Your task to perform on an android device: Is it going to rain today? Image 0: 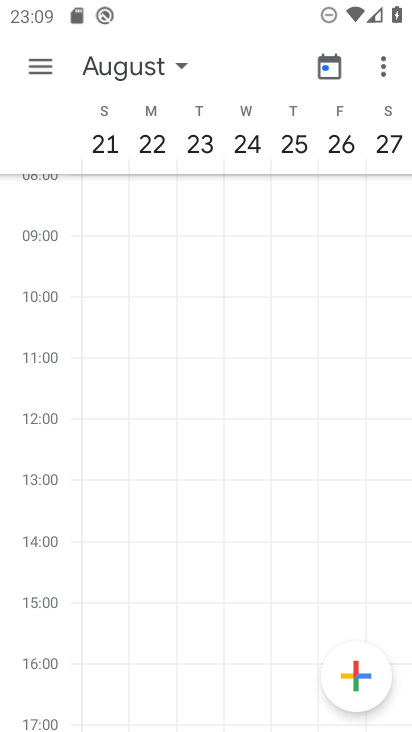
Step 0: press home button
Your task to perform on an android device: Is it going to rain today? Image 1: 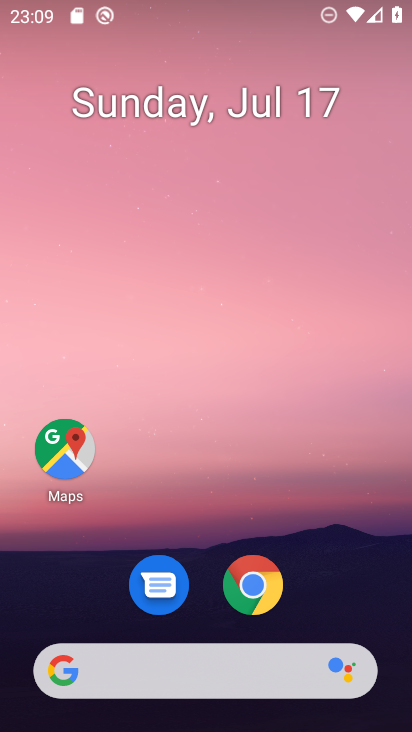
Step 1: click (185, 679)
Your task to perform on an android device: Is it going to rain today? Image 2: 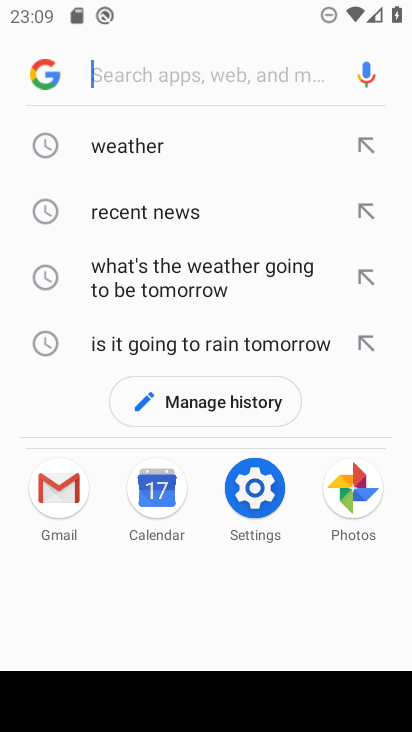
Step 2: click (156, 144)
Your task to perform on an android device: Is it going to rain today? Image 3: 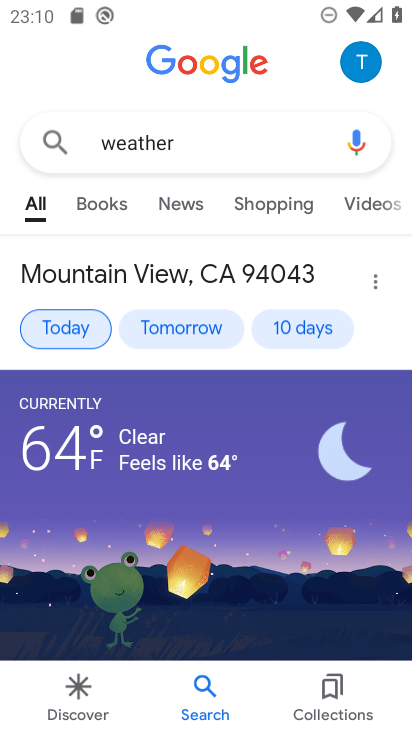
Step 3: task complete